Your task to perform on an android device: Open notification settings Image 0: 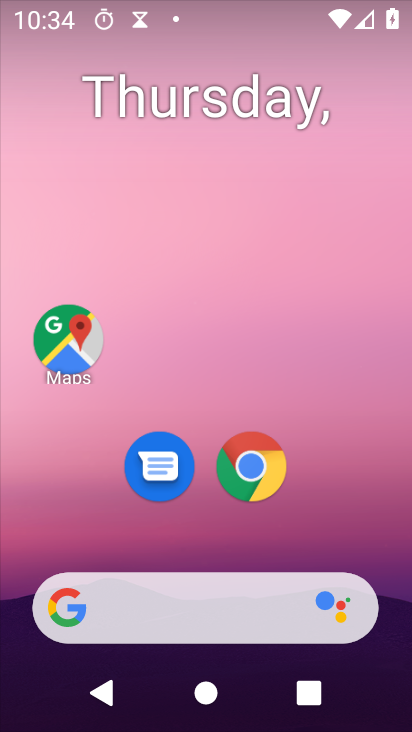
Step 0: drag from (166, 611) to (299, 126)
Your task to perform on an android device: Open notification settings Image 1: 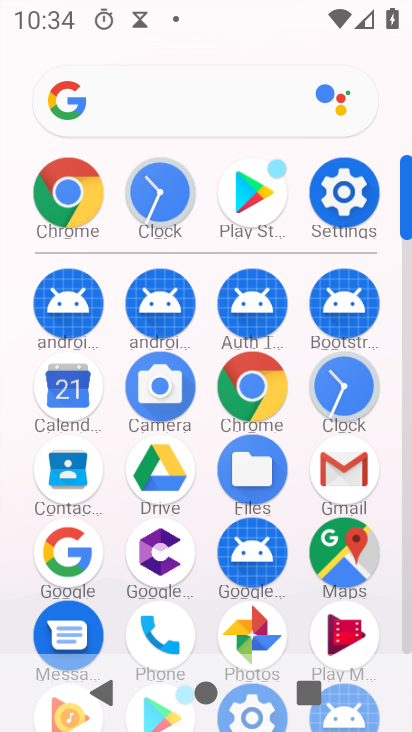
Step 1: click (348, 198)
Your task to perform on an android device: Open notification settings Image 2: 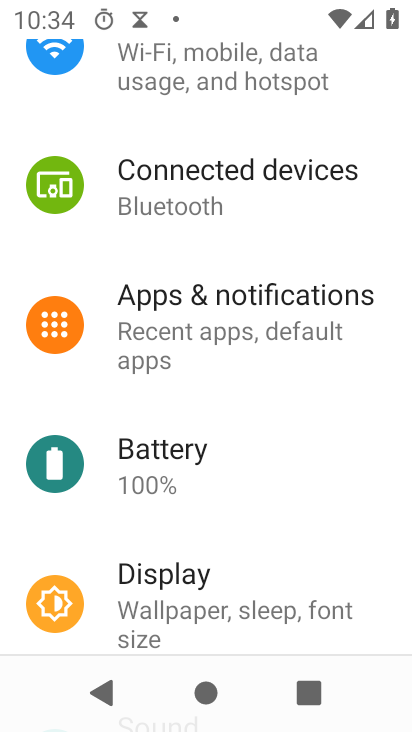
Step 2: click (259, 327)
Your task to perform on an android device: Open notification settings Image 3: 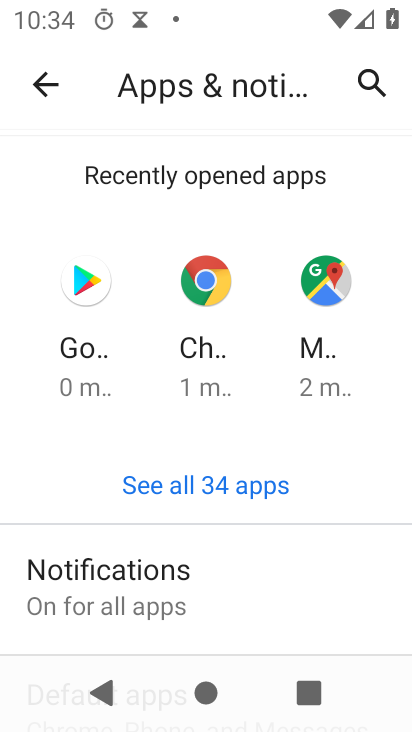
Step 3: click (152, 570)
Your task to perform on an android device: Open notification settings Image 4: 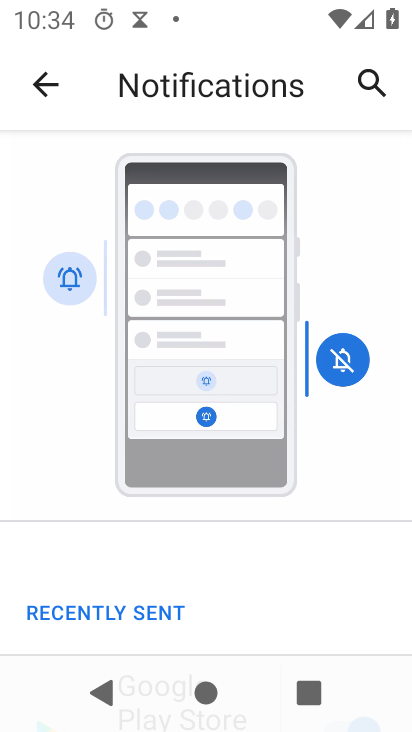
Step 4: task complete